Your task to perform on an android device: refresh tabs in the chrome app Image 0: 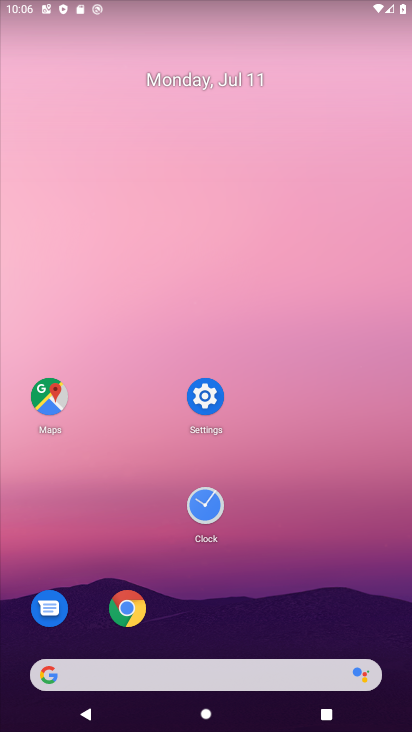
Step 0: click (121, 608)
Your task to perform on an android device: refresh tabs in the chrome app Image 1: 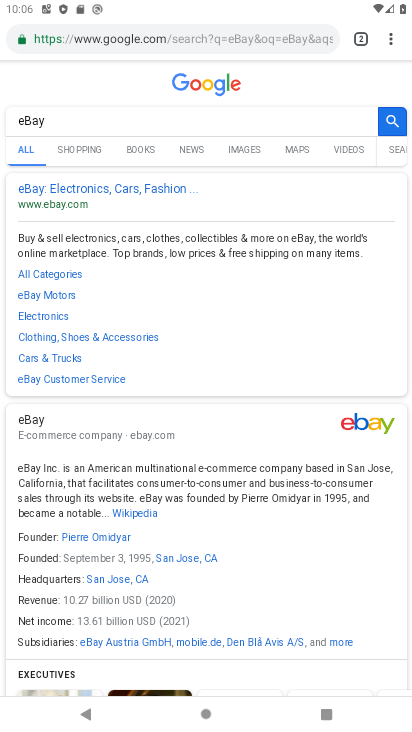
Step 1: click (392, 36)
Your task to perform on an android device: refresh tabs in the chrome app Image 2: 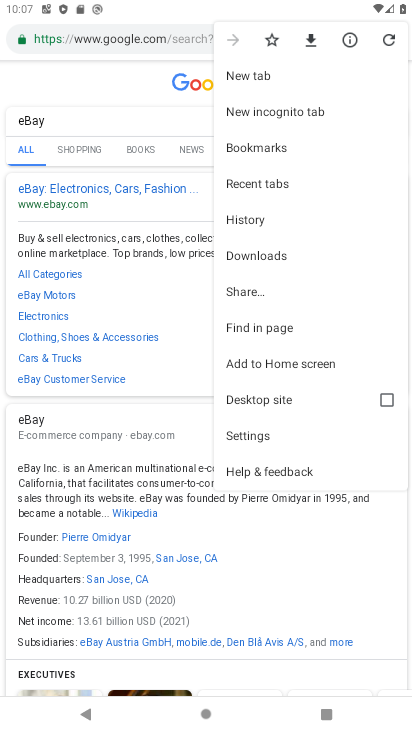
Step 2: click (388, 41)
Your task to perform on an android device: refresh tabs in the chrome app Image 3: 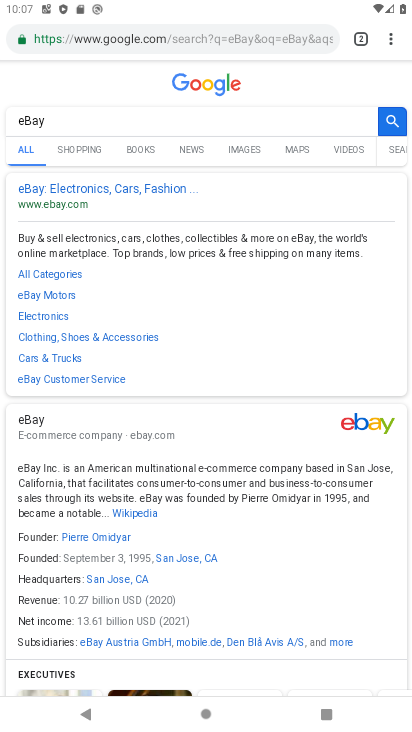
Step 3: task complete